Your task to perform on an android device: Go to ESPN.com Image 0: 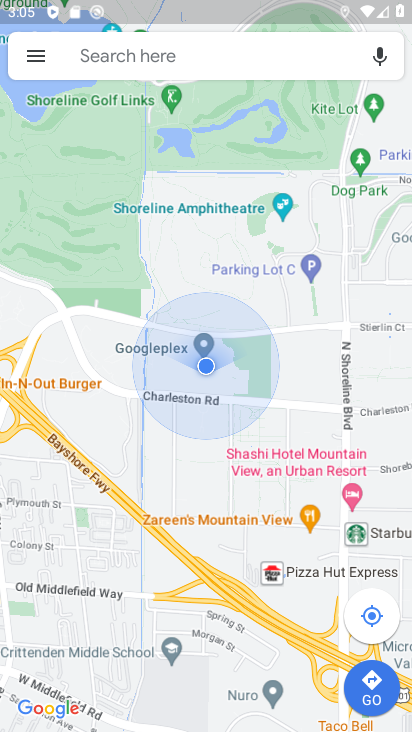
Step 0: press home button
Your task to perform on an android device: Go to ESPN.com Image 1: 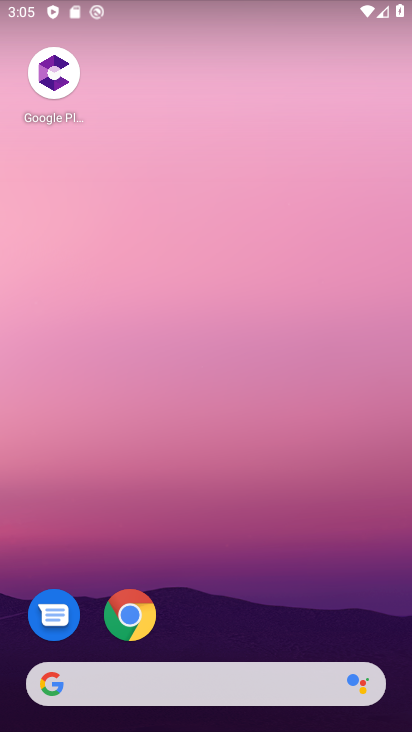
Step 1: click (140, 612)
Your task to perform on an android device: Go to ESPN.com Image 2: 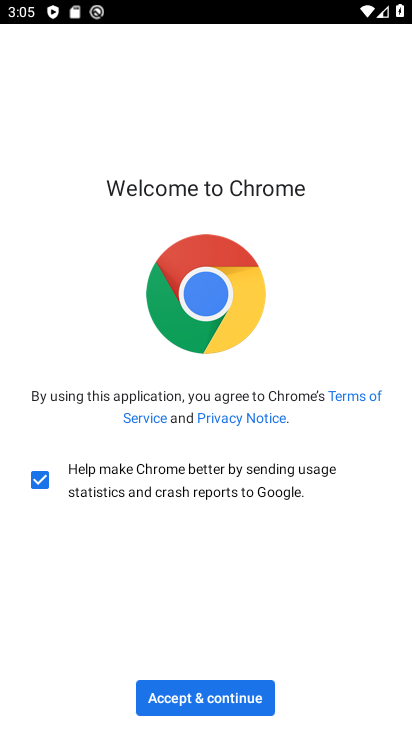
Step 2: click (211, 709)
Your task to perform on an android device: Go to ESPN.com Image 3: 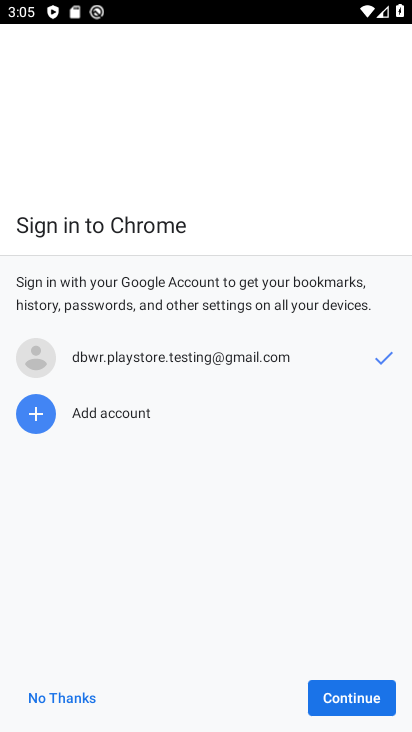
Step 3: click (330, 702)
Your task to perform on an android device: Go to ESPN.com Image 4: 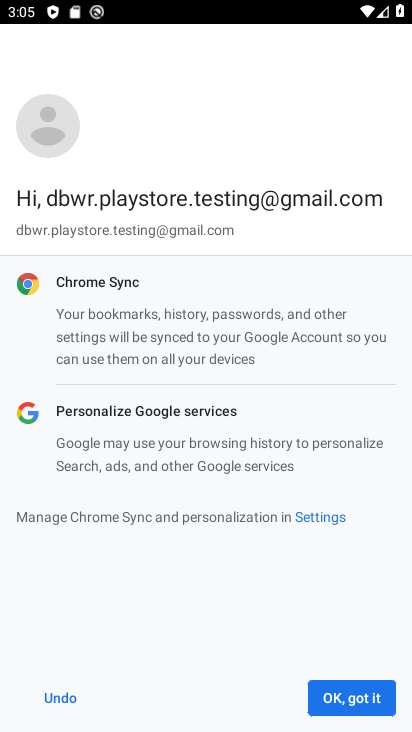
Step 4: click (330, 702)
Your task to perform on an android device: Go to ESPN.com Image 5: 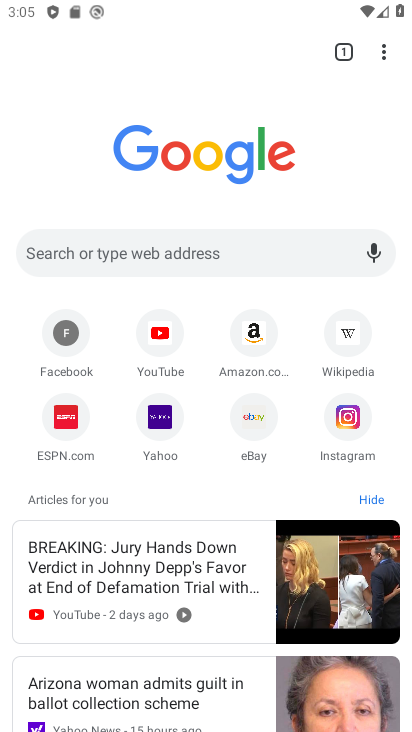
Step 5: click (65, 428)
Your task to perform on an android device: Go to ESPN.com Image 6: 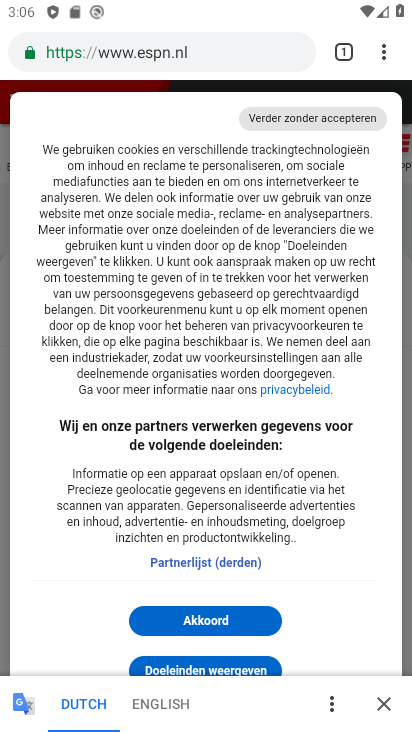
Step 6: click (258, 627)
Your task to perform on an android device: Go to ESPN.com Image 7: 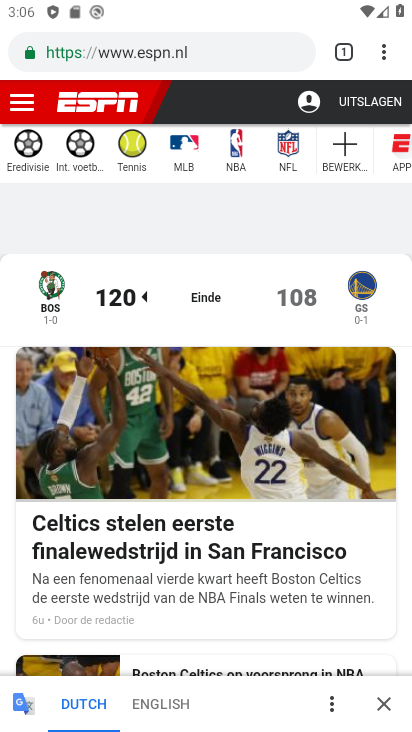
Step 7: task complete